Your task to perform on an android device: toggle priority inbox in the gmail app Image 0: 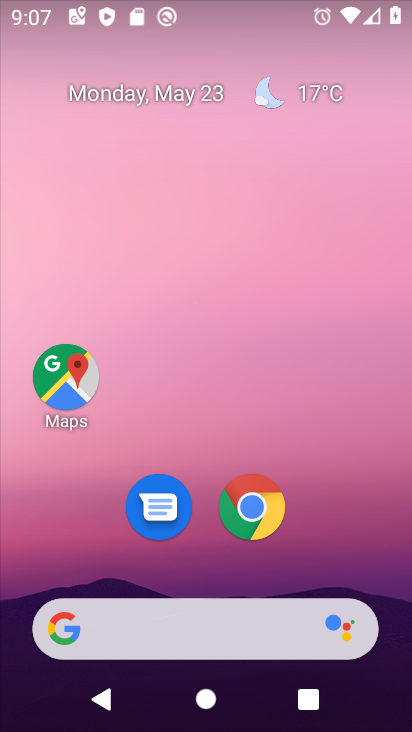
Step 0: drag from (379, 572) to (324, 5)
Your task to perform on an android device: toggle priority inbox in the gmail app Image 1: 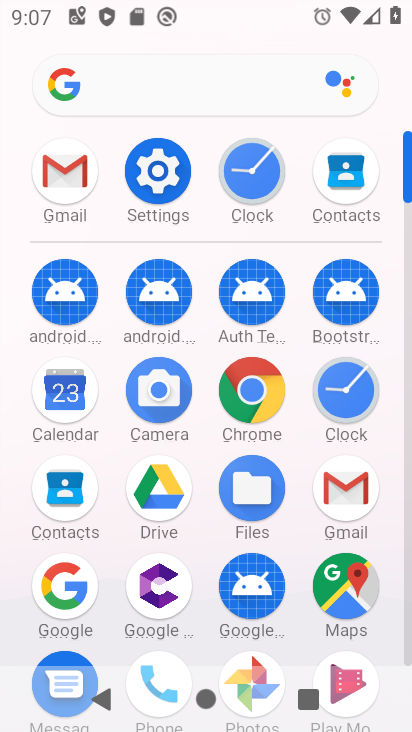
Step 1: click (48, 189)
Your task to perform on an android device: toggle priority inbox in the gmail app Image 2: 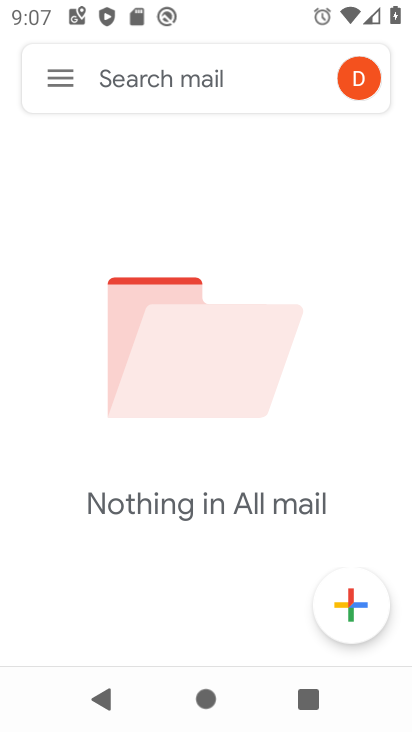
Step 2: click (53, 82)
Your task to perform on an android device: toggle priority inbox in the gmail app Image 3: 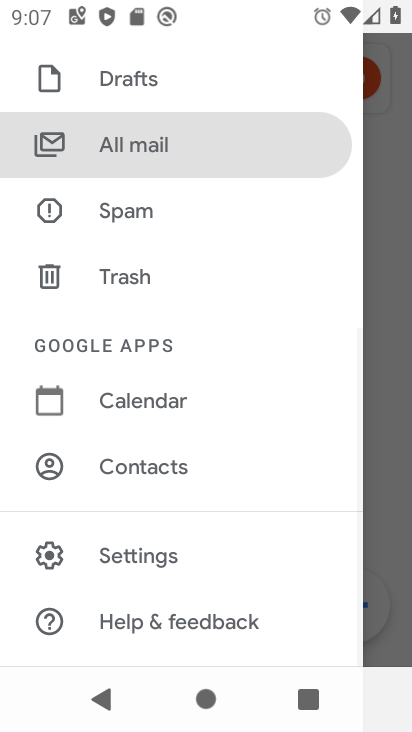
Step 3: click (135, 550)
Your task to perform on an android device: toggle priority inbox in the gmail app Image 4: 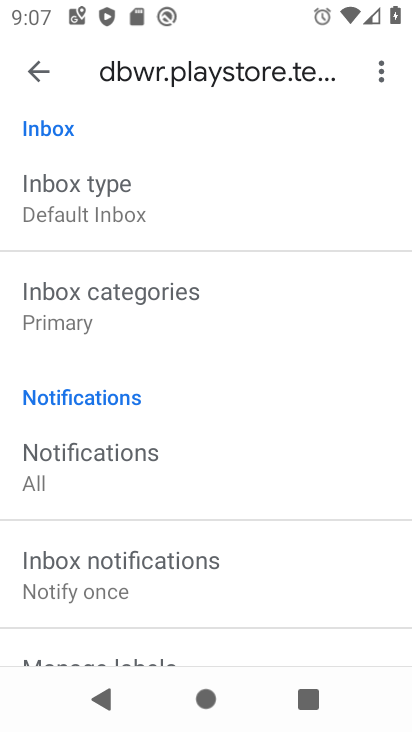
Step 4: drag from (210, 483) to (214, 557)
Your task to perform on an android device: toggle priority inbox in the gmail app Image 5: 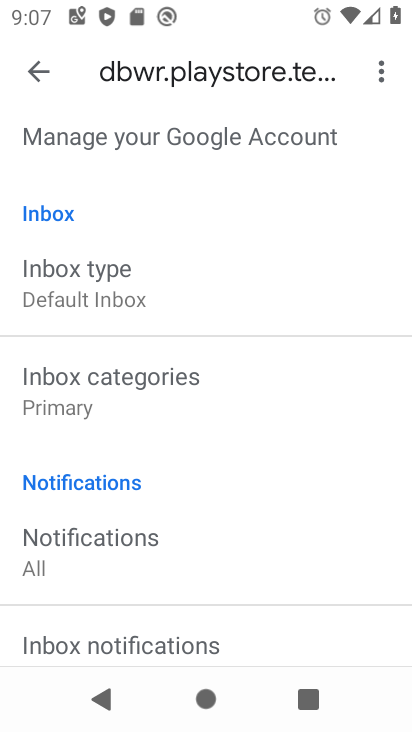
Step 5: click (81, 305)
Your task to perform on an android device: toggle priority inbox in the gmail app Image 6: 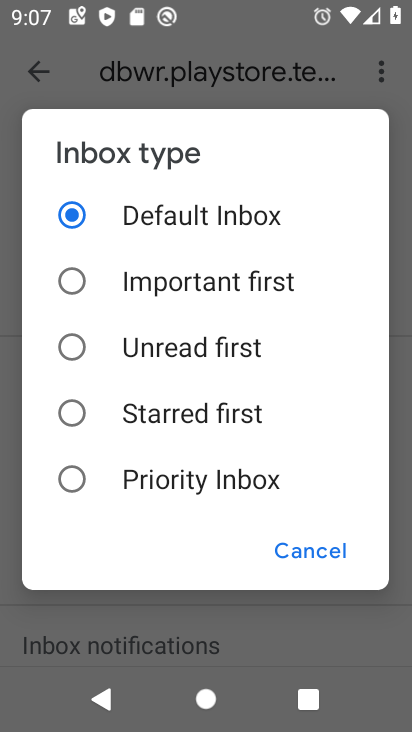
Step 6: click (85, 485)
Your task to perform on an android device: toggle priority inbox in the gmail app Image 7: 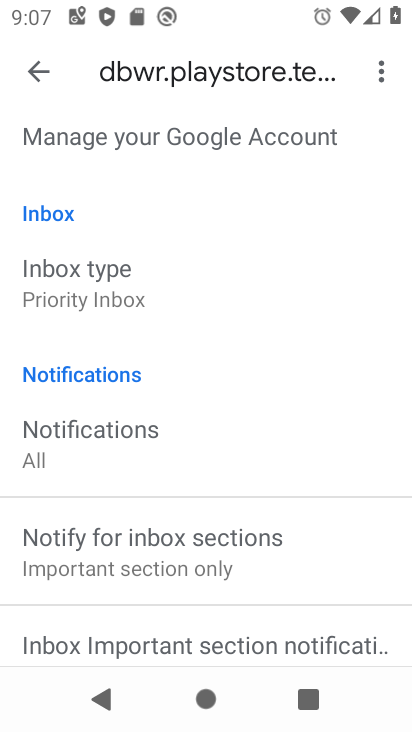
Step 7: task complete